Your task to perform on an android device: turn off smart reply in the gmail app Image 0: 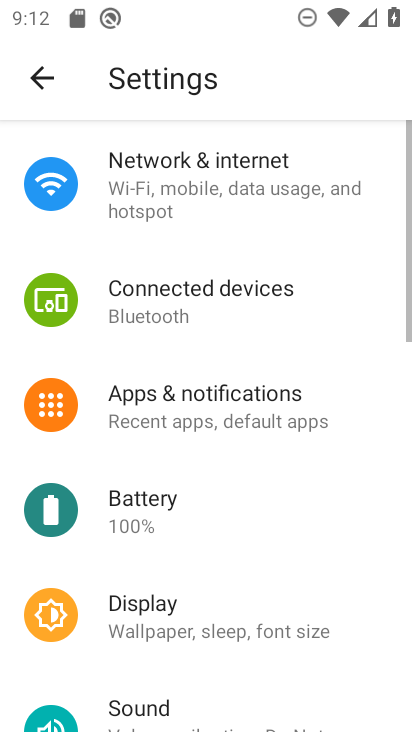
Step 0: drag from (294, 660) to (233, 189)
Your task to perform on an android device: turn off smart reply in the gmail app Image 1: 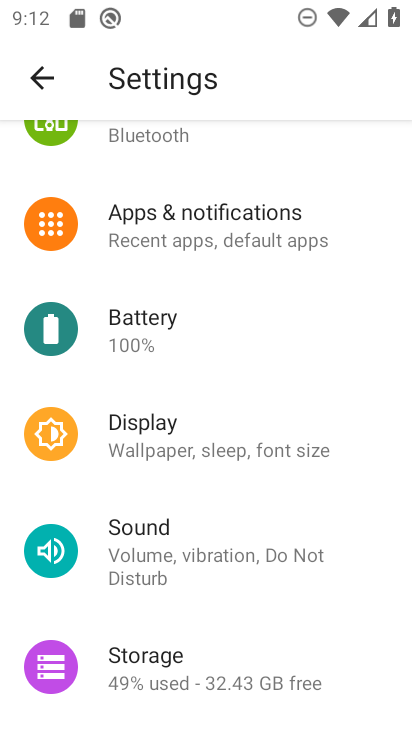
Step 1: press back button
Your task to perform on an android device: turn off smart reply in the gmail app Image 2: 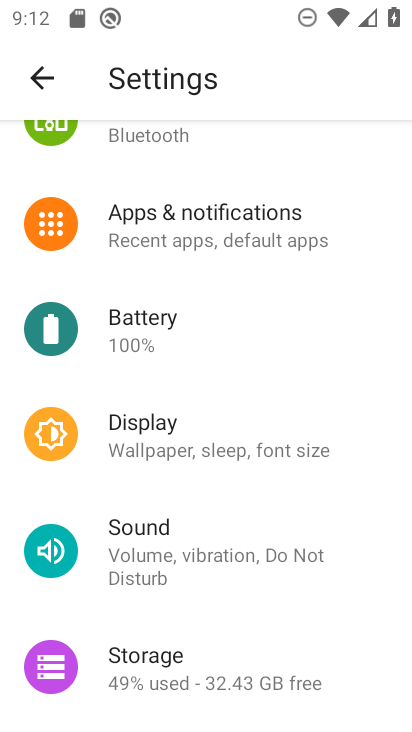
Step 2: press back button
Your task to perform on an android device: turn off smart reply in the gmail app Image 3: 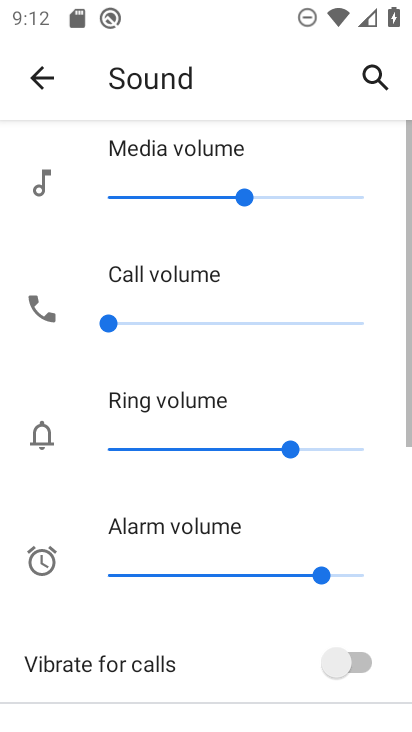
Step 3: press back button
Your task to perform on an android device: turn off smart reply in the gmail app Image 4: 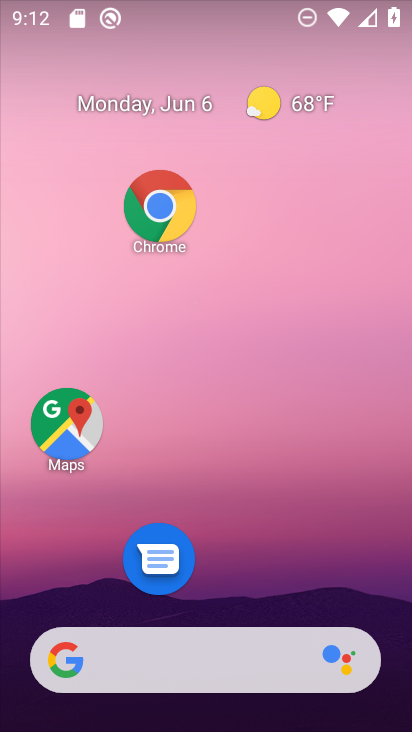
Step 4: press home button
Your task to perform on an android device: turn off smart reply in the gmail app Image 5: 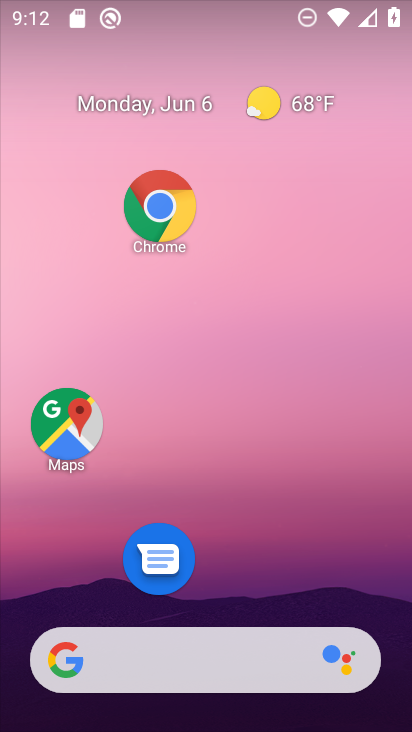
Step 5: click (226, 80)
Your task to perform on an android device: turn off smart reply in the gmail app Image 6: 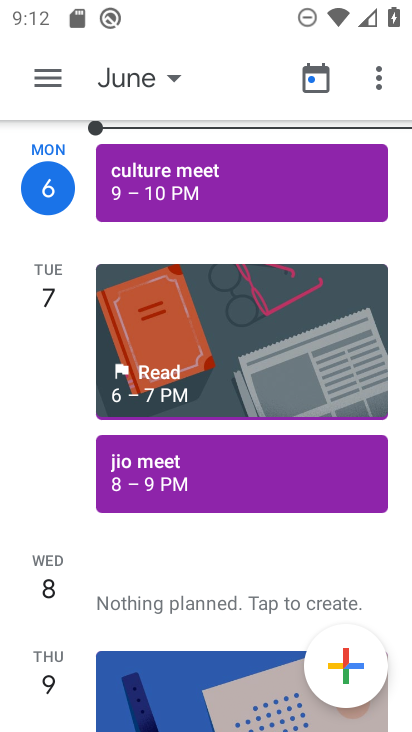
Step 6: press back button
Your task to perform on an android device: turn off smart reply in the gmail app Image 7: 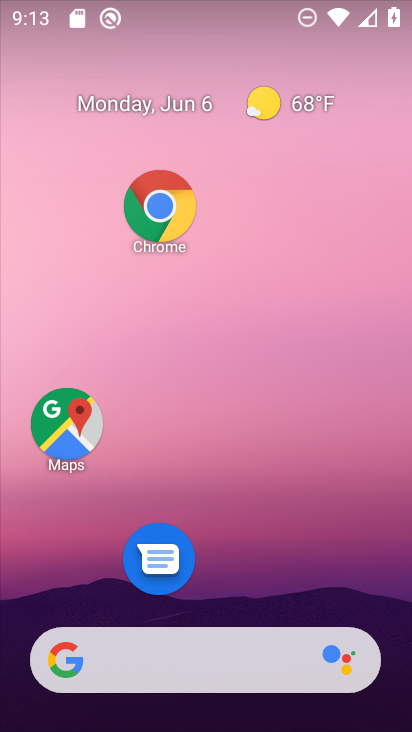
Step 7: drag from (278, 703) to (228, 203)
Your task to perform on an android device: turn off smart reply in the gmail app Image 8: 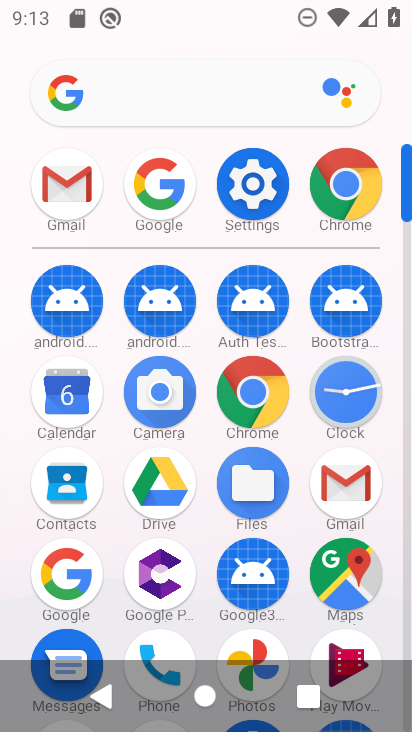
Step 8: drag from (263, 595) to (245, 236)
Your task to perform on an android device: turn off smart reply in the gmail app Image 9: 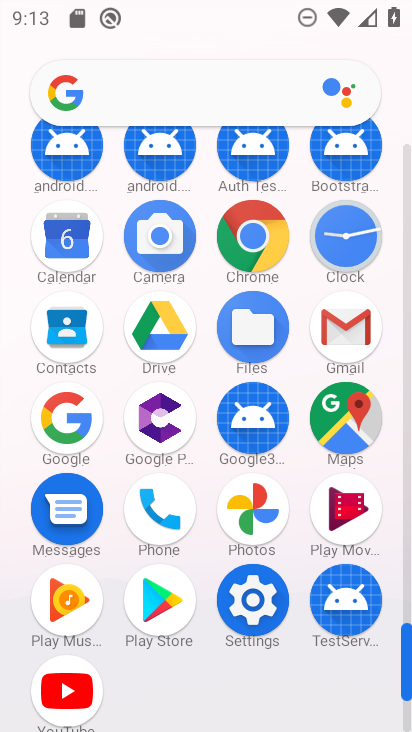
Step 9: click (350, 326)
Your task to perform on an android device: turn off smart reply in the gmail app Image 10: 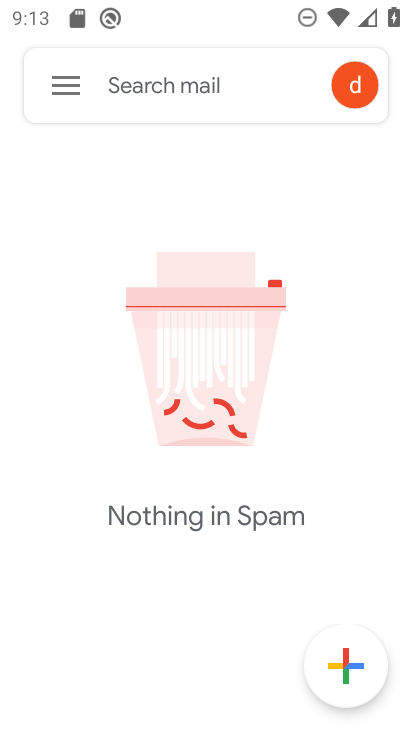
Step 10: click (57, 85)
Your task to perform on an android device: turn off smart reply in the gmail app Image 11: 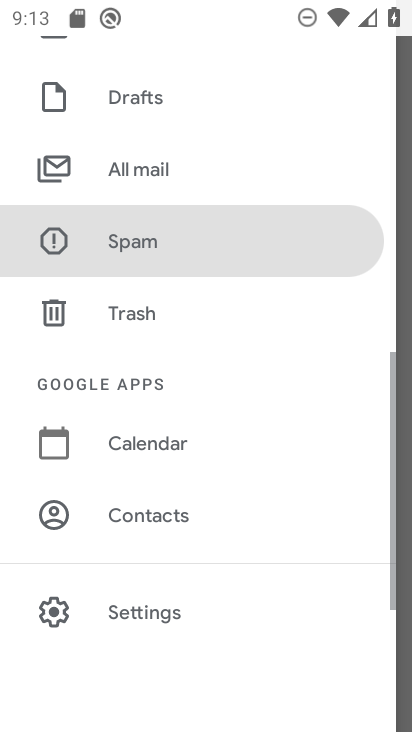
Step 11: click (60, 81)
Your task to perform on an android device: turn off smart reply in the gmail app Image 12: 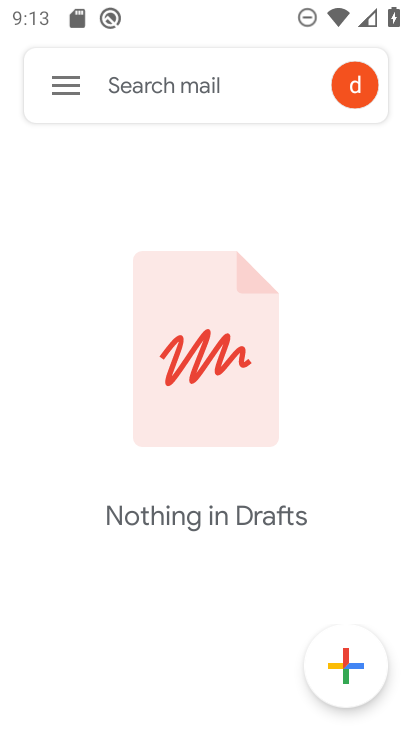
Step 12: click (69, 75)
Your task to perform on an android device: turn off smart reply in the gmail app Image 13: 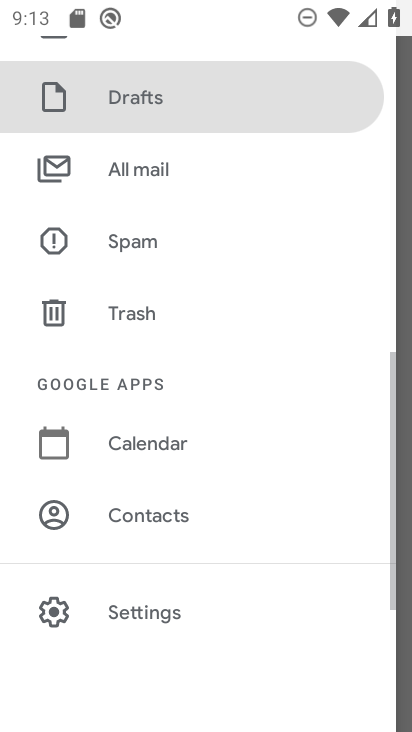
Step 13: click (131, 607)
Your task to perform on an android device: turn off smart reply in the gmail app Image 14: 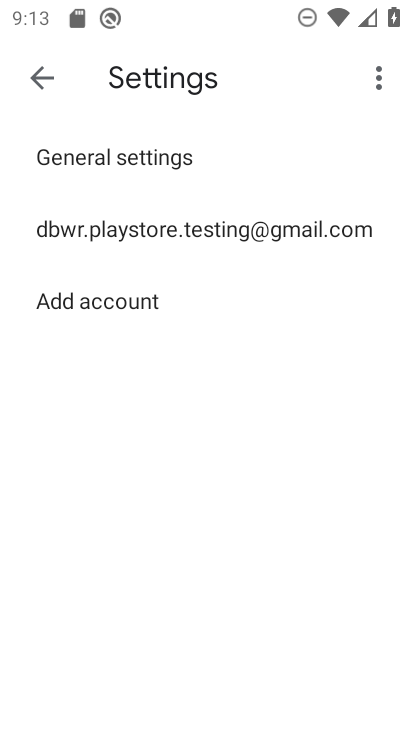
Step 14: click (40, 83)
Your task to perform on an android device: turn off smart reply in the gmail app Image 15: 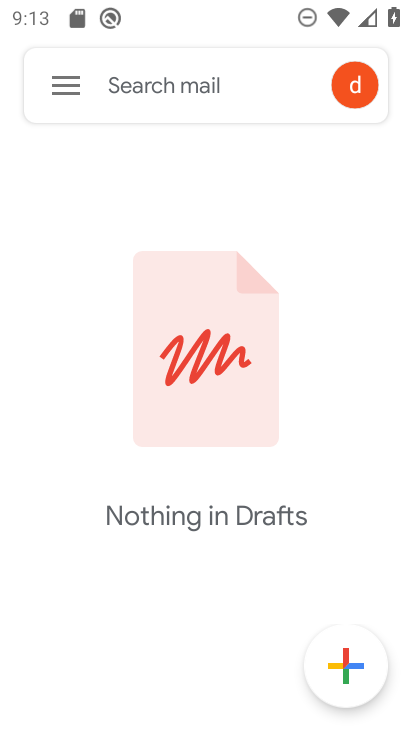
Step 15: press back button
Your task to perform on an android device: turn off smart reply in the gmail app Image 16: 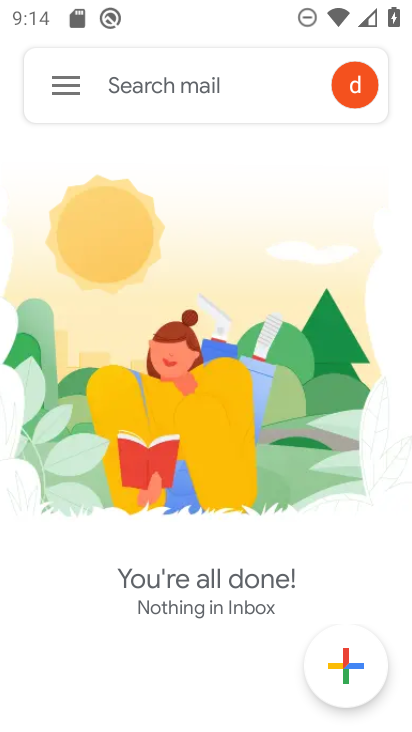
Step 16: click (74, 86)
Your task to perform on an android device: turn off smart reply in the gmail app Image 17: 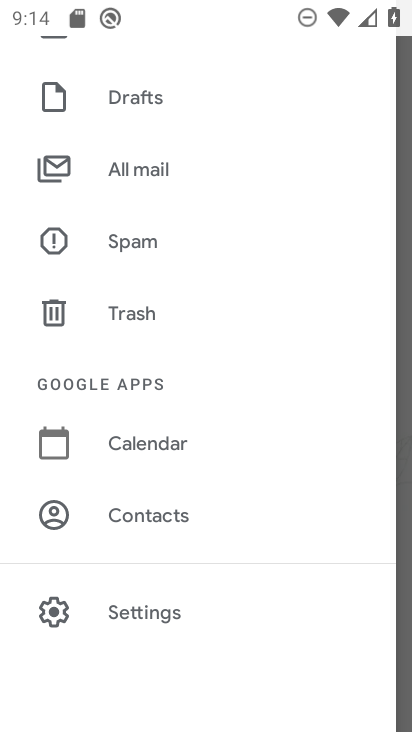
Step 17: click (137, 600)
Your task to perform on an android device: turn off smart reply in the gmail app Image 18: 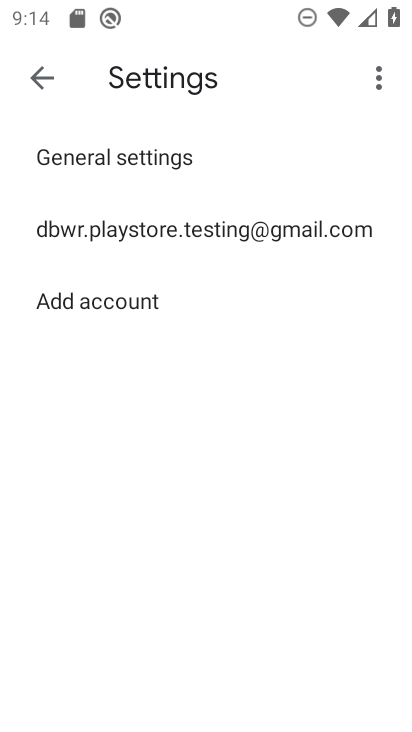
Step 18: click (136, 224)
Your task to perform on an android device: turn off smart reply in the gmail app Image 19: 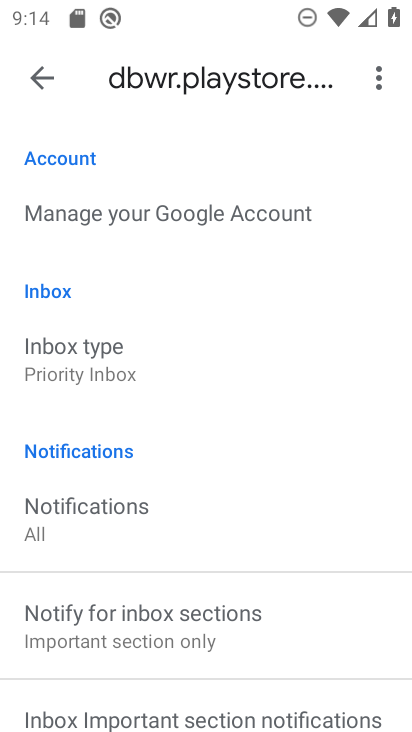
Step 19: drag from (155, 583) to (148, 153)
Your task to perform on an android device: turn off smart reply in the gmail app Image 20: 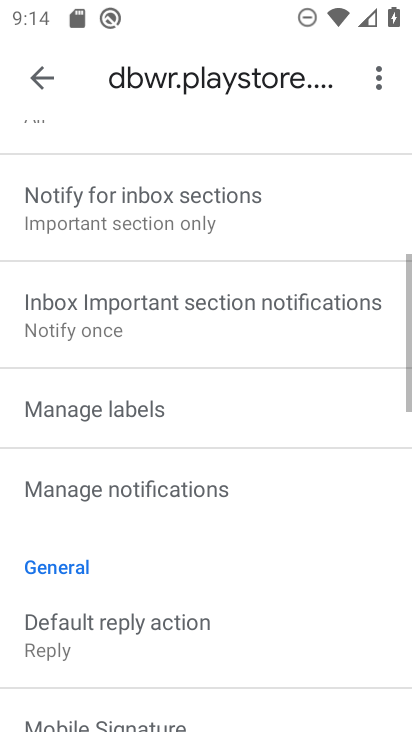
Step 20: drag from (220, 494) to (172, 276)
Your task to perform on an android device: turn off smart reply in the gmail app Image 21: 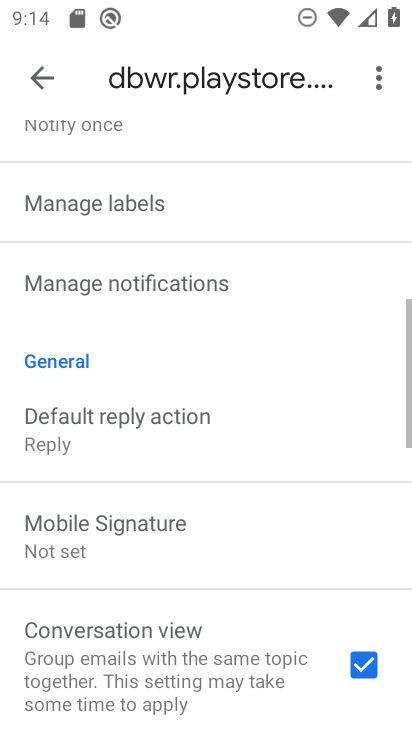
Step 21: drag from (193, 523) to (192, 305)
Your task to perform on an android device: turn off smart reply in the gmail app Image 22: 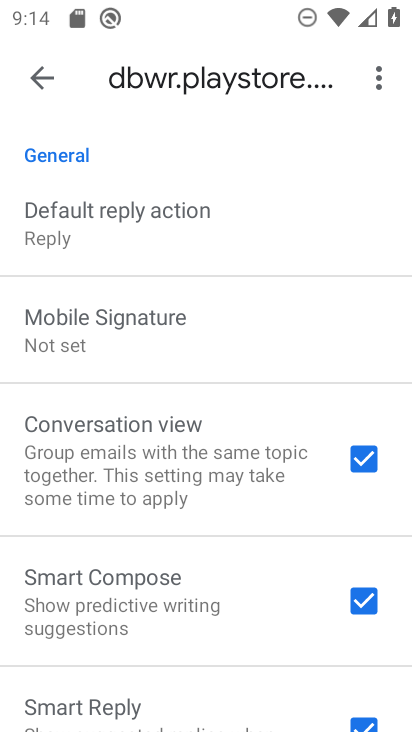
Step 22: drag from (182, 598) to (142, 249)
Your task to perform on an android device: turn off smart reply in the gmail app Image 23: 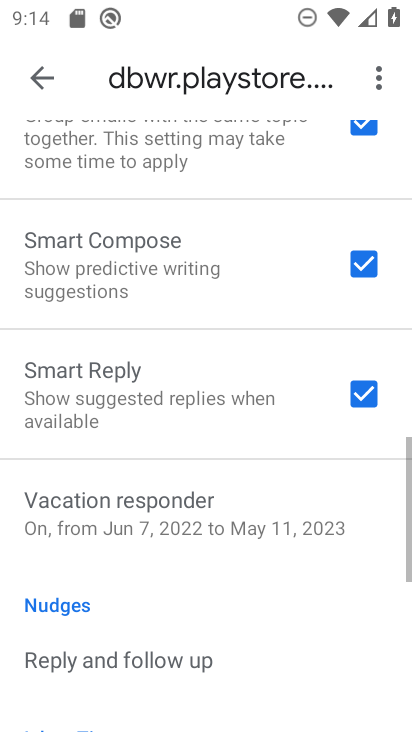
Step 23: drag from (192, 536) to (192, 299)
Your task to perform on an android device: turn off smart reply in the gmail app Image 24: 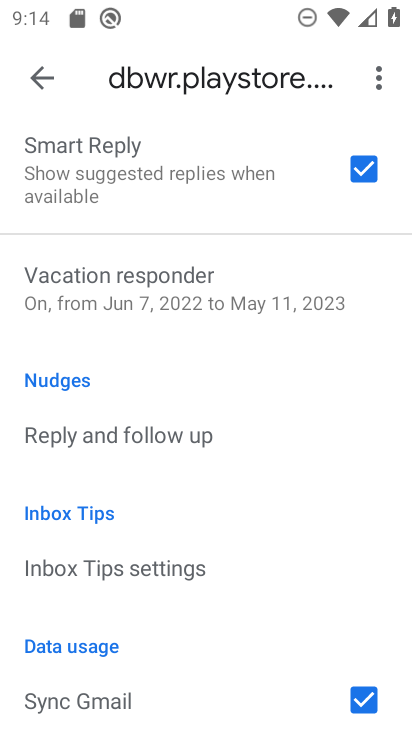
Step 24: click (221, 258)
Your task to perform on an android device: turn off smart reply in the gmail app Image 25: 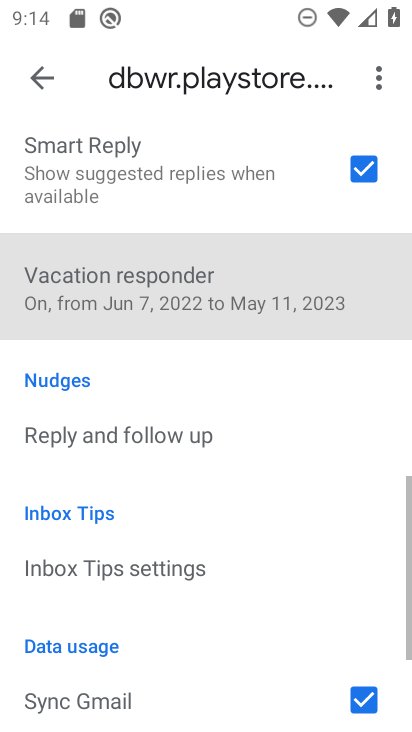
Step 25: click (366, 178)
Your task to perform on an android device: turn off smart reply in the gmail app Image 26: 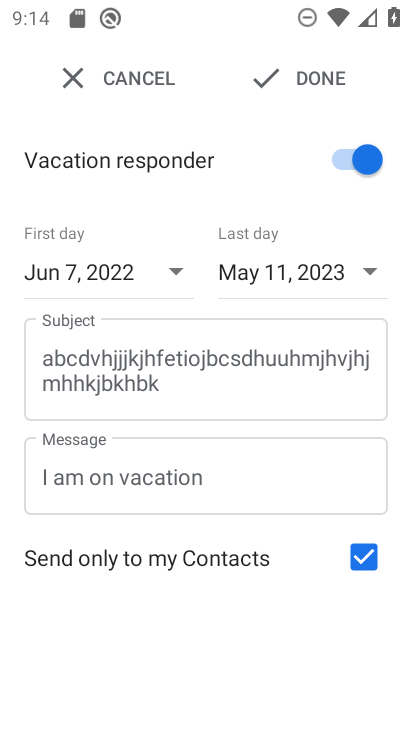
Step 26: click (364, 174)
Your task to perform on an android device: turn off smart reply in the gmail app Image 27: 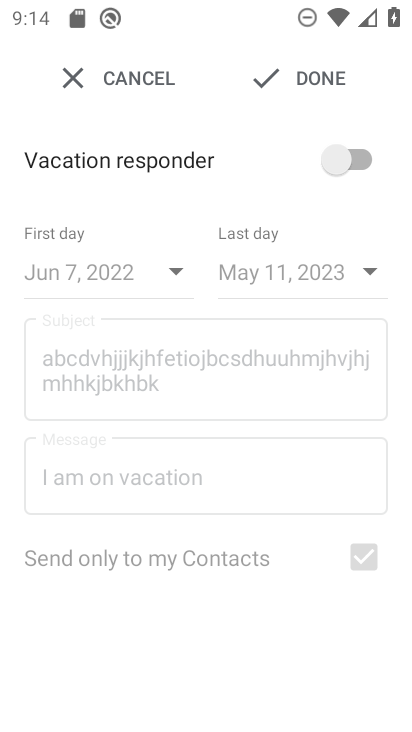
Step 27: click (336, 160)
Your task to perform on an android device: turn off smart reply in the gmail app Image 28: 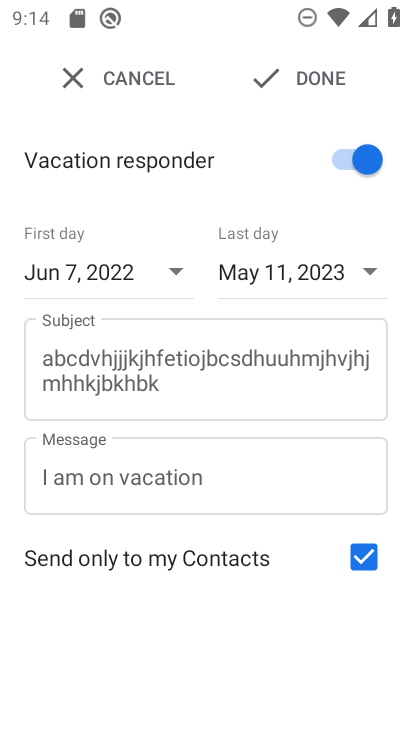
Step 28: press back button
Your task to perform on an android device: turn off smart reply in the gmail app Image 29: 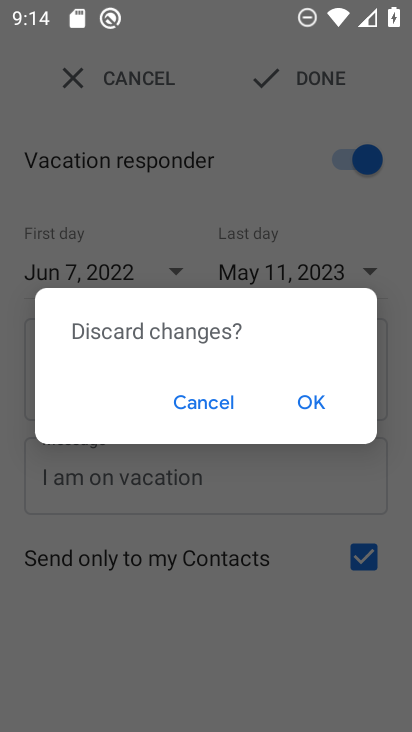
Step 29: click (213, 401)
Your task to perform on an android device: turn off smart reply in the gmail app Image 30: 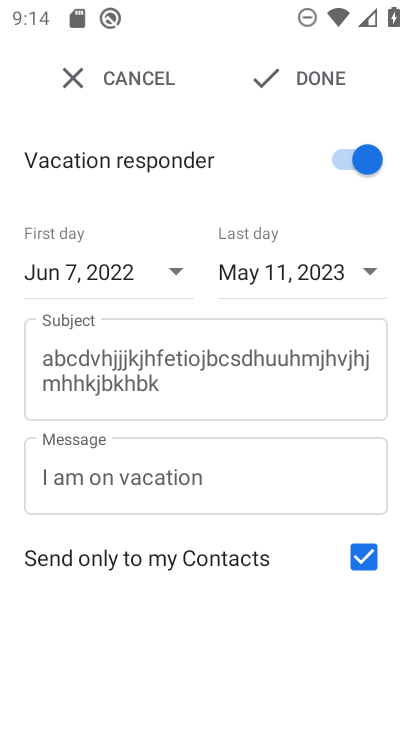
Step 30: drag from (230, 180) to (231, 550)
Your task to perform on an android device: turn off smart reply in the gmail app Image 31: 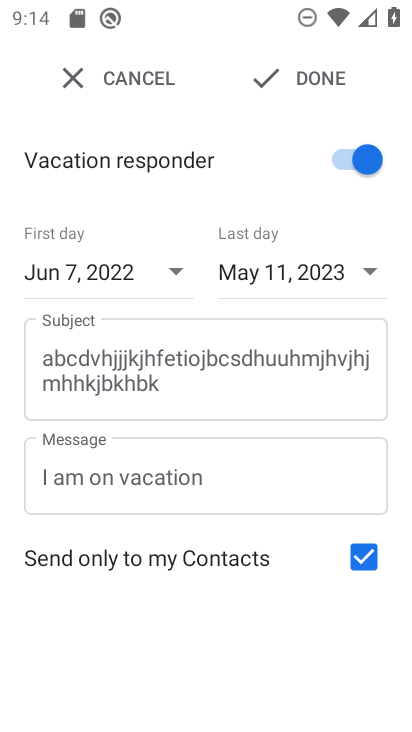
Step 31: click (69, 65)
Your task to perform on an android device: turn off smart reply in the gmail app Image 32: 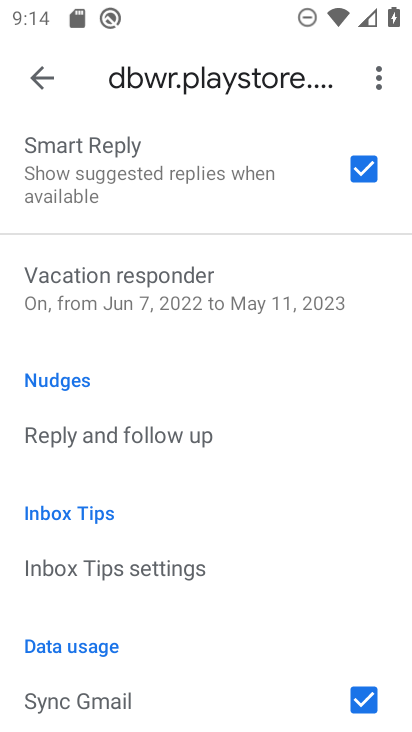
Step 32: click (363, 155)
Your task to perform on an android device: turn off smart reply in the gmail app Image 33: 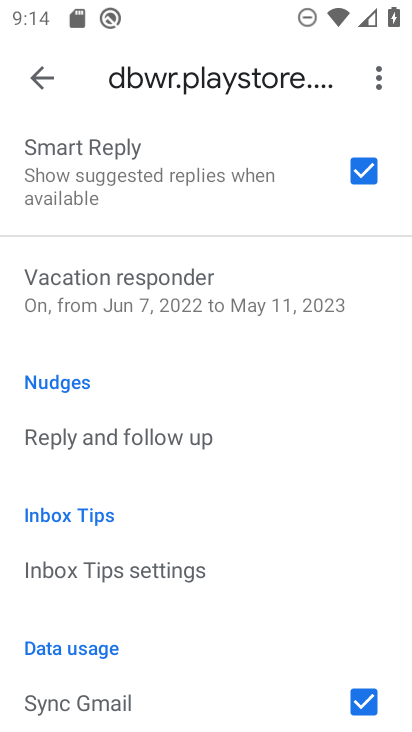
Step 33: click (362, 172)
Your task to perform on an android device: turn off smart reply in the gmail app Image 34: 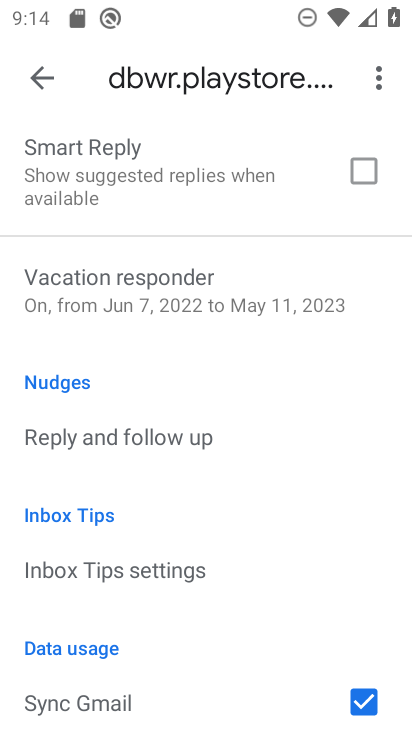
Step 34: task complete